Your task to perform on an android device: show emergency info Image 0: 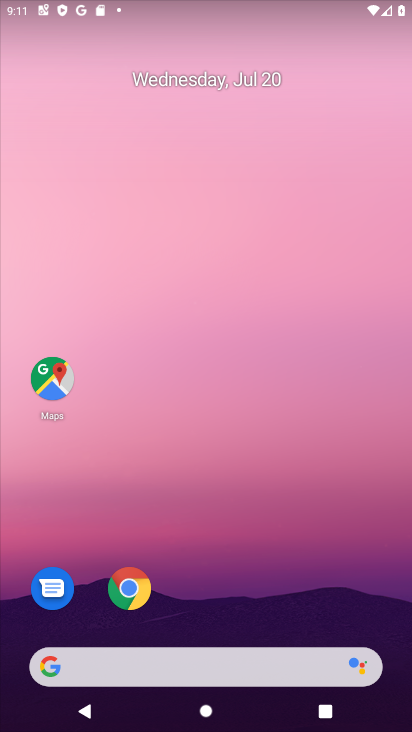
Step 0: drag from (305, 510) to (297, 60)
Your task to perform on an android device: show emergency info Image 1: 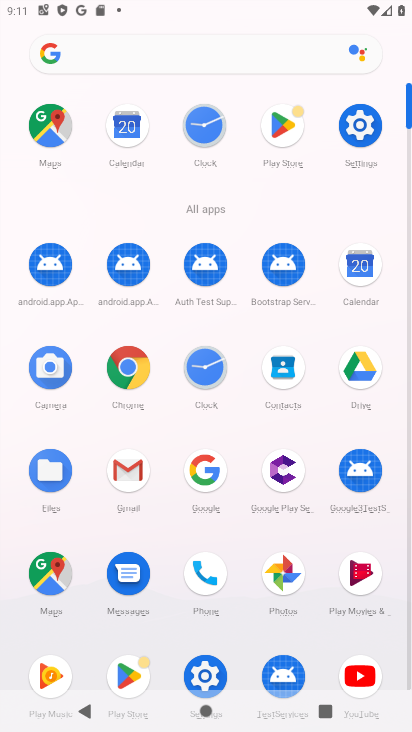
Step 1: click (365, 122)
Your task to perform on an android device: show emergency info Image 2: 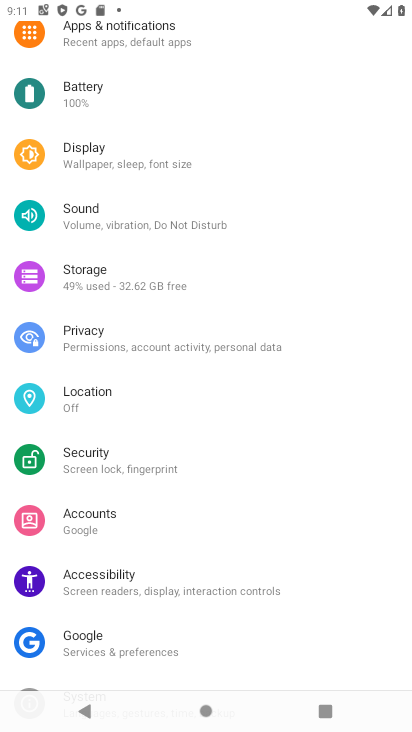
Step 2: drag from (233, 673) to (232, 115)
Your task to perform on an android device: show emergency info Image 3: 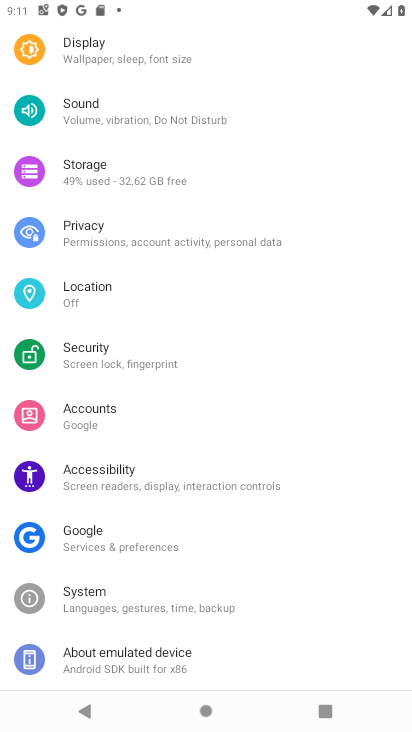
Step 3: click (238, 673)
Your task to perform on an android device: show emergency info Image 4: 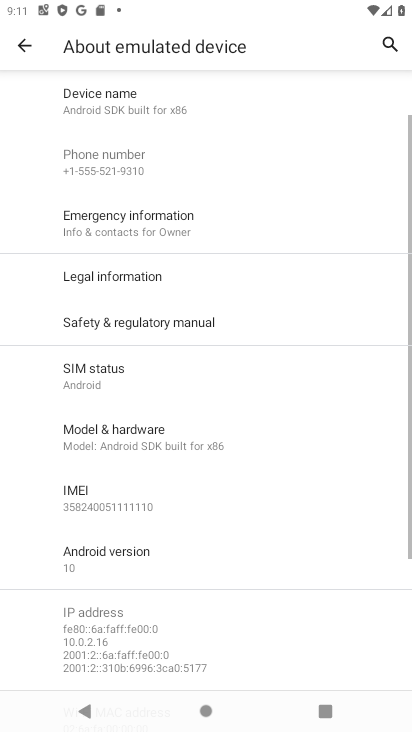
Step 4: click (163, 236)
Your task to perform on an android device: show emergency info Image 5: 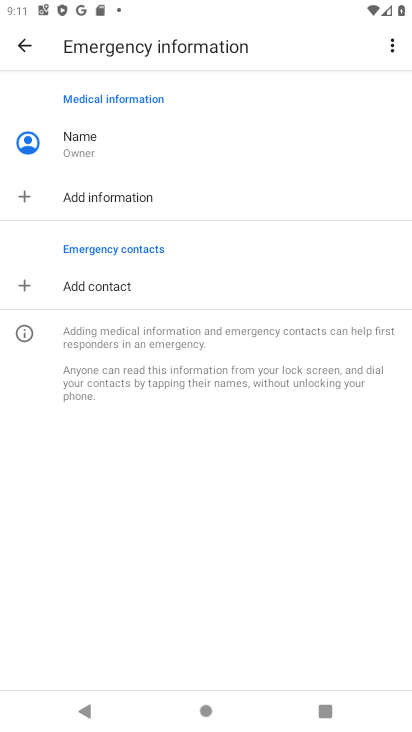
Step 5: task complete